Your task to perform on an android device: Clear the shopping cart on walmart. Add "razer blade" to the cart on walmart, then select checkout. Image 0: 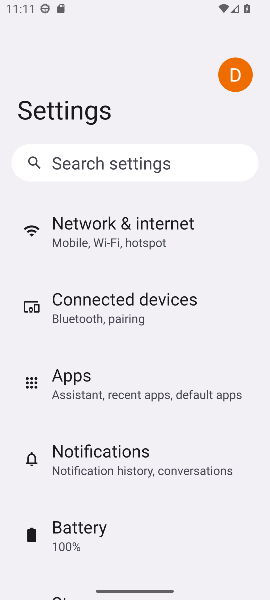
Step 0: press home button
Your task to perform on an android device: Clear the shopping cart on walmart. Add "razer blade" to the cart on walmart, then select checkout. Image 1: 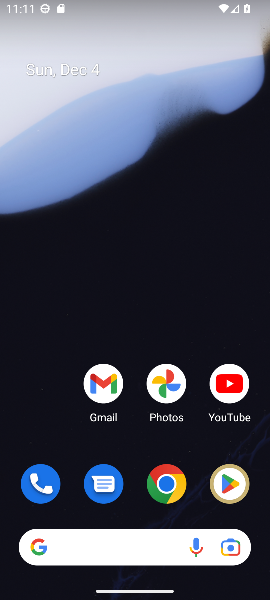
Step 1: click (159, 488)
Your task to perform on an android device: Clear the shopping cart on walmart. Add "razer blade" to the cart on walmart, then select checkout. Image 2: 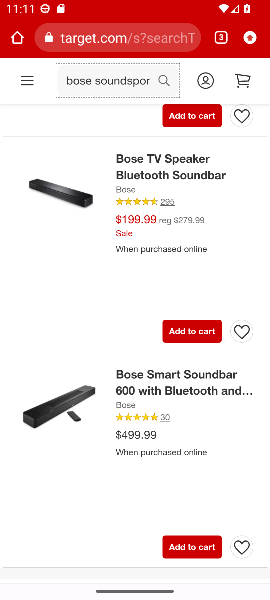
Step 2: click (103, 44)
Your task to perform on an android device: Clear the shopping cart on walmart. Add "razer blade" to the cart on walmart, then select checkout. Image 3: 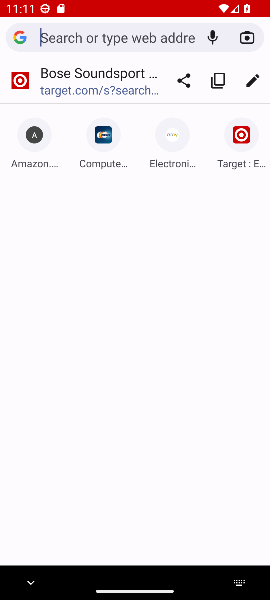
Step 3: type "walmart.com"
Your task to perform on an android device: Clear the shopping cart on walmart. Add "razer blade" to the cart on walmart, then select checkout. Image 4: 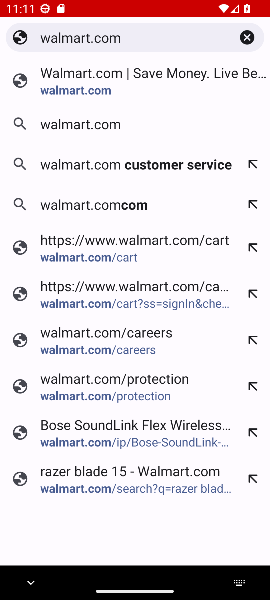
Step 4: click (95, 100)
Your task to perform on an android device: Clear the shopping cart on walmart. Add "razer blade" to the cart on walmart, then select checkout. Image 5: 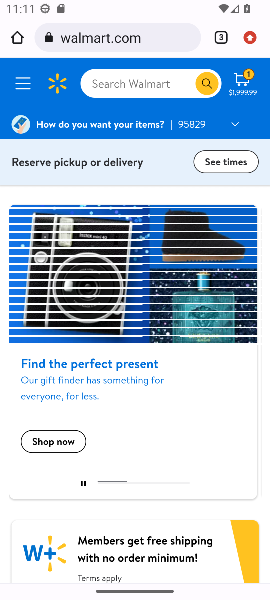
Step 5: click (241, 84)
Your task to perform on an android device: Clear the shopping cart on walmart. Add "razer blade" to the cart on walmart, then select checkout. Image 6: 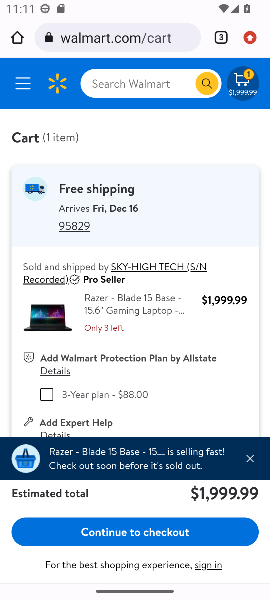
Step 6: drag from (124, 320) to (132, 162)
Your task to perform on an android device: Clear the shopping cart on walmart. Add "razer blade" to the cart on walmart, then select checkout. Image 7: 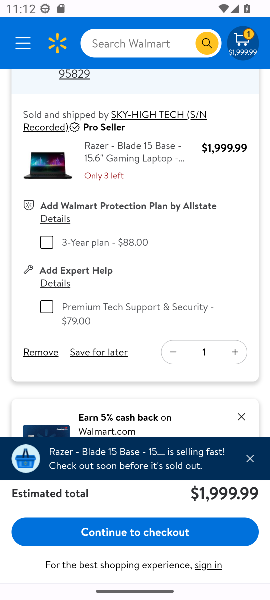
Step 7: click (39, 356)
Your task to perform on an android device: Clear the shopping cart on walmart. Add "razer blade" to the cart on walmart, then select checkout. Image 8: 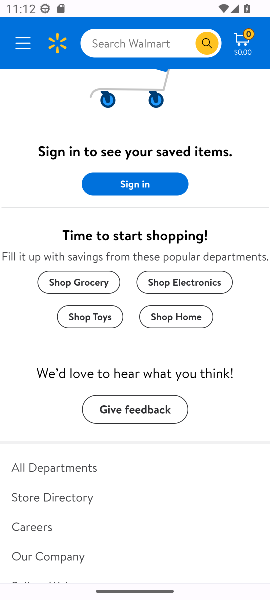
Step 8: click (136, 49)
Your task to perform on an android device: Clear the shopping cart on walmart. Add "razer blade" to the cart on walmart, then select checkout. Image 9: 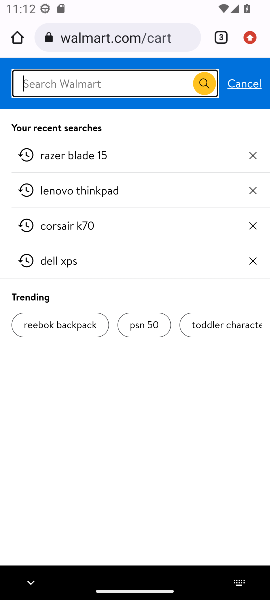
Step 9: type "razer blade"
Your task to perform on an android device: Clear the shopping cart on walmart. Add "razer blade" to the cart on walmart, then select checkout. Image 10: 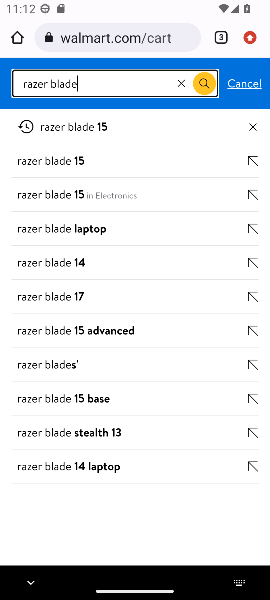
Step 10: click (92, 131)
Your task to perform on an android device: Clear the shopping cart on walmart. Add "razer blade" to the cart on walmart, then select checkout. Image 11: 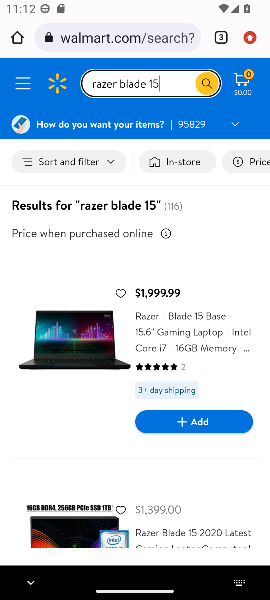
Step 11: click (179, 423)
Your task to perform on an android device: Clear the shopping cart on walmart. Add "razer blade" to the cart on walmart, then select checkout. Image 12: 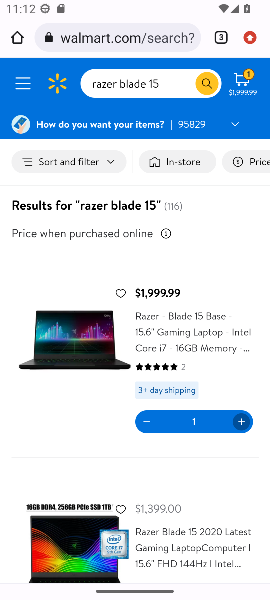
Step 12: task complete